Your task to perform on an android device: Search for vegetarian restaurants on Maps Image 0: 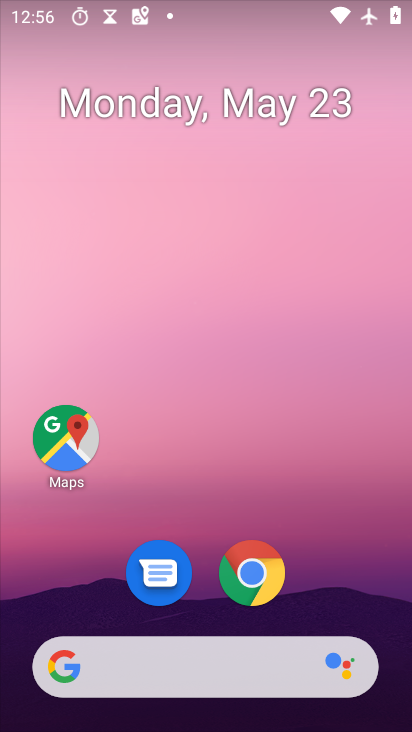
Step 0: click (64, 447)
Your task to perform on an android device: Search for vegetarian restaurants on Maps Image 1: 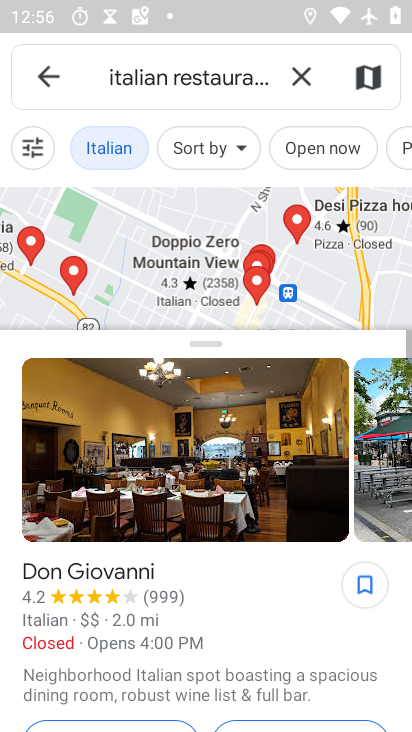
Step 1: click (301, 73)
Your task to perform on an android device: Search for vegetarian restaurants on Maps Image 2: 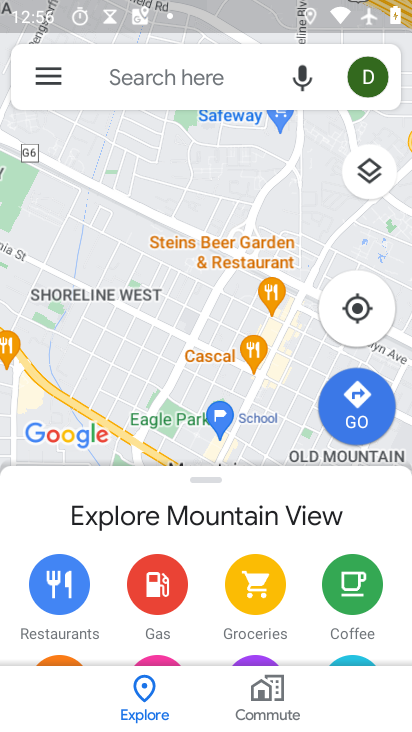
Step 2: click (173, 76)
Your task to perform on an android device: Search for vegetarian restaurants on Maps Image 3: 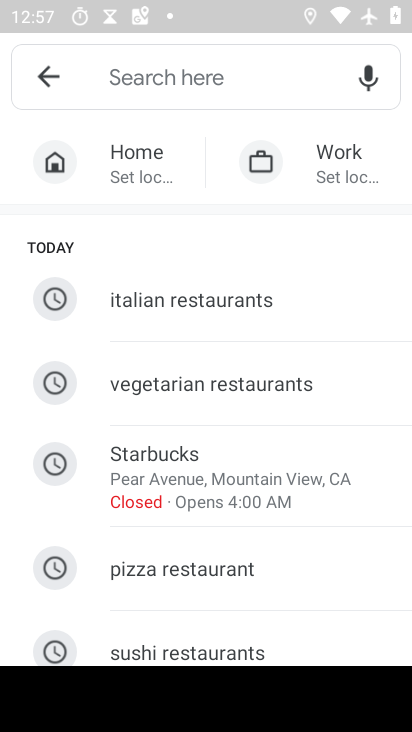
Step 3: click (161, 394)
Your task to perform on an android device: Search for vegetarian restaurants on Maps Image 4: 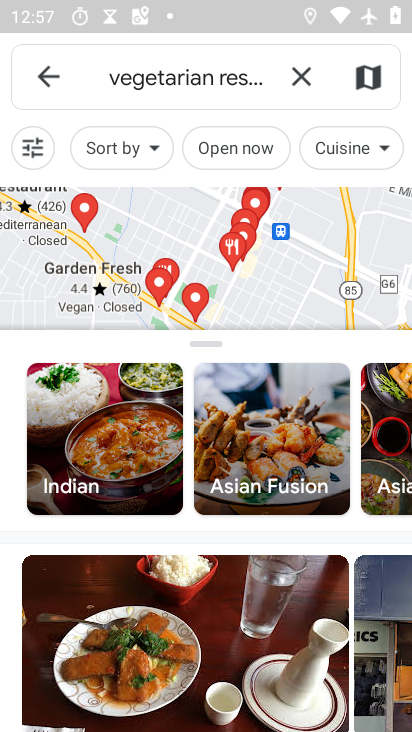
Step 4: task complete